Your task to perform on an android device: Open Android settings Image 0: 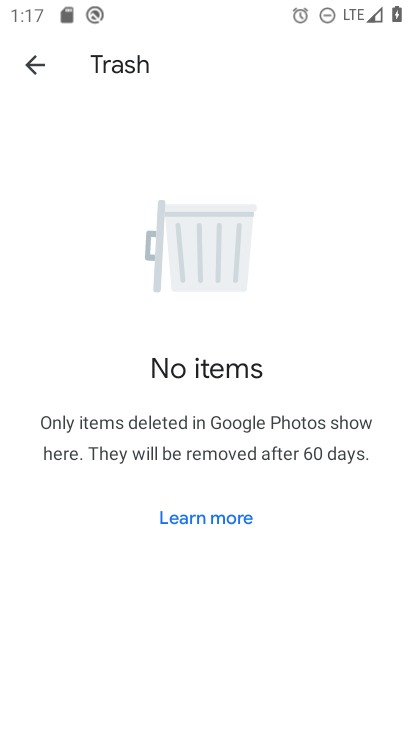
Step 0: press home button
Your task to perform on an android device: Open Android settings Image 1: 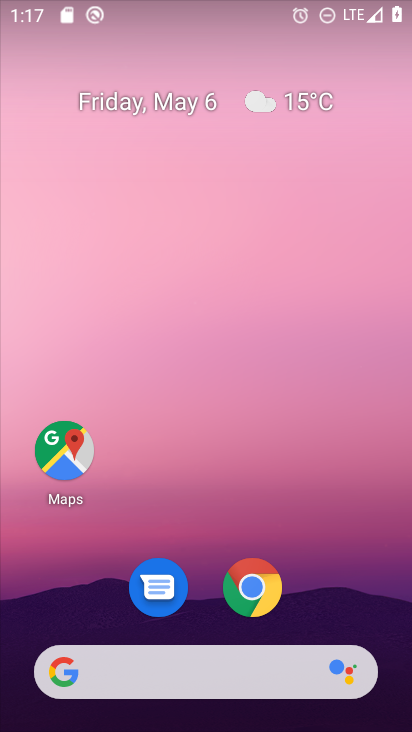
Step 1: drag from (337, 507) to (244, 36)
Your task to perform on an android device: Open Android settings Image 2: 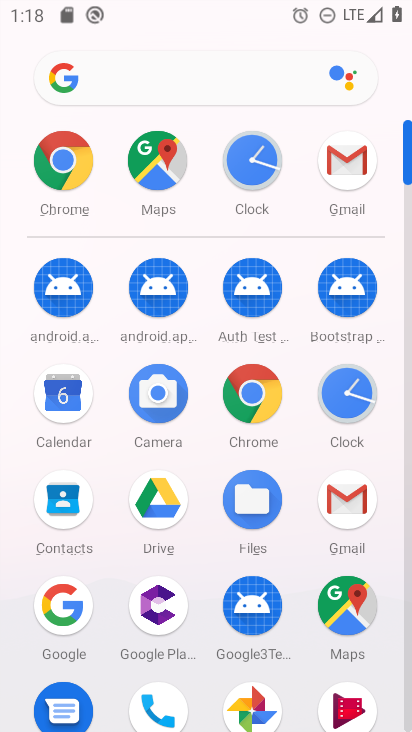
Step 2: drag from (290, 646) to (238, 99)
Your task to perform on an android device: Open Android settings Image 3: 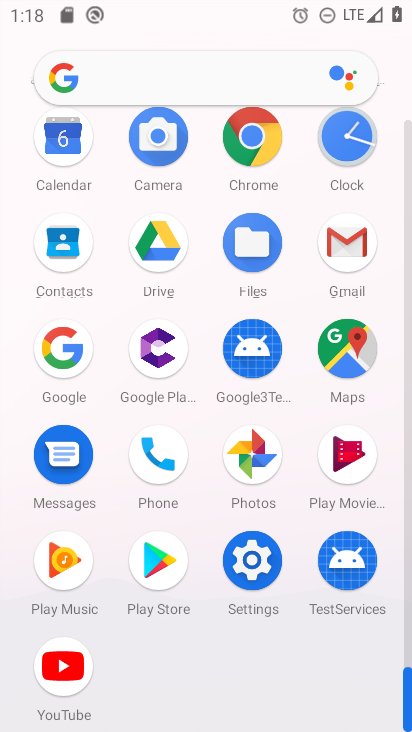
Step 3: click (259, 560)
Your task to perform on an android device: Open Android settings Image 4: 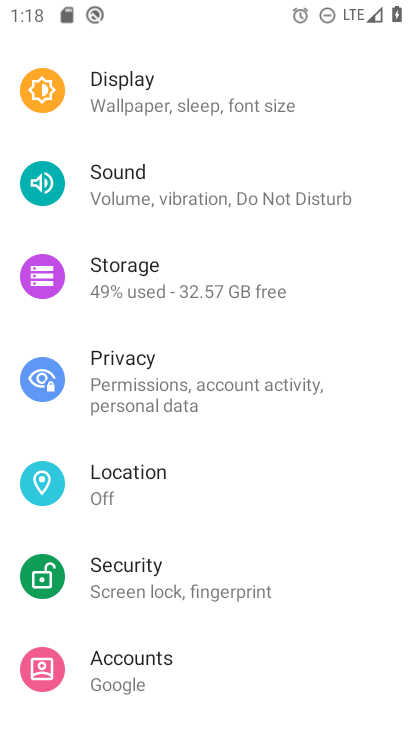
Step 4: drag from (244, 624) to (243, 90)
Your task to perform on an android device: Open Android settings Image 5: 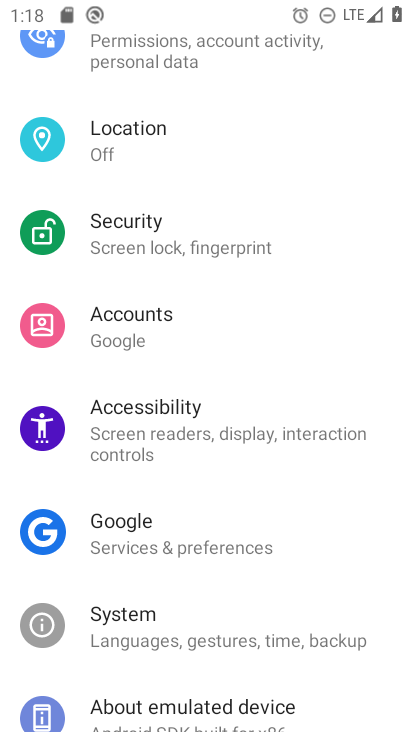
Step 5: click (194, 699)
Your task to perform on an android device: Open Android settings Image 6: 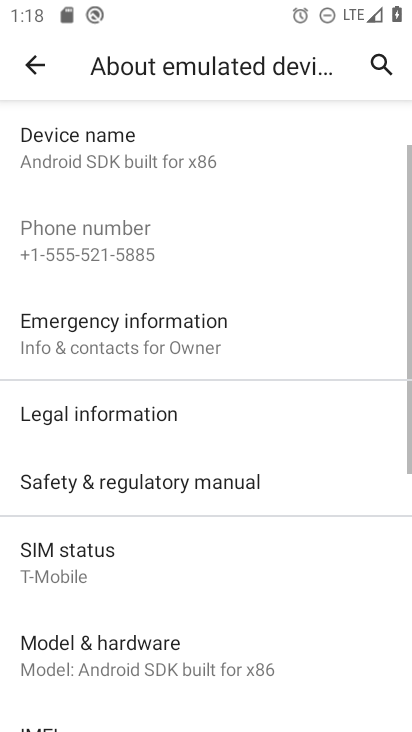
Step 6: drag from (204, 612) to (206, 151)
Your task to perform on an android device: Open Android settings Image 7: 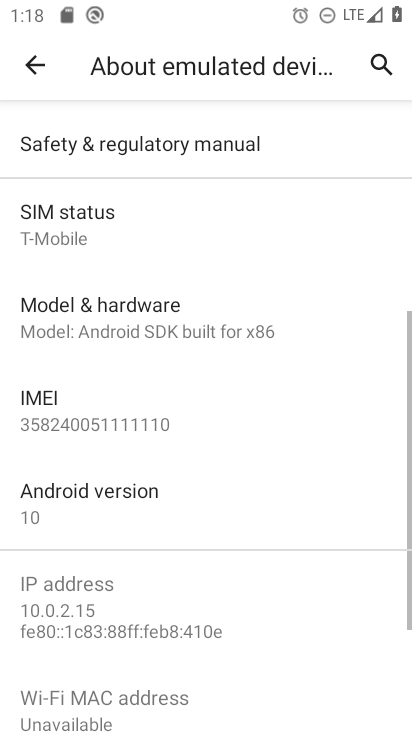
Step 7: click (150, 483)
Your task to perform on an android device: Open Android settings Image 8: 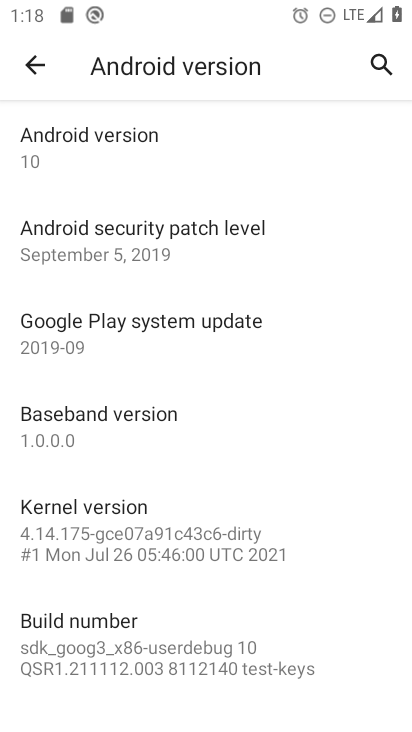
Step 8: task complete